Your task to perform on an android device: Show me popular games on the Play Store Image 0: 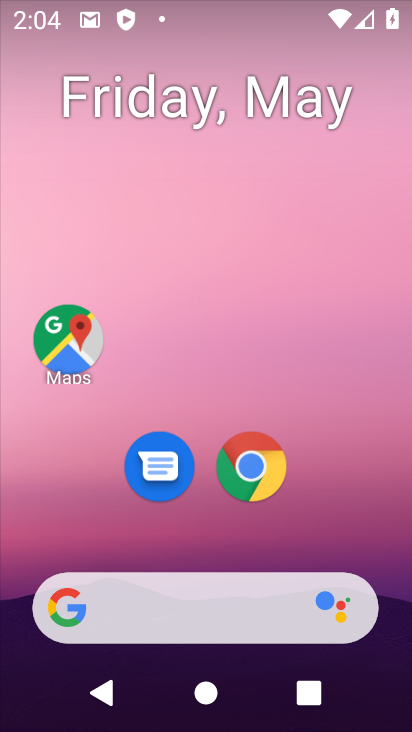
Step 0: drag from (169, 548) to (248, 200)
Your task to perform on an android device: Show me popular games on the Play Store Image 1: 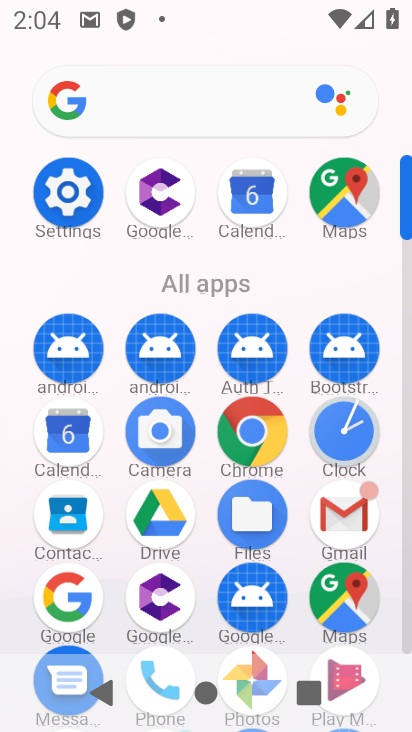
Step 1: drag from (167, 610) to (243, 117)
Your task to perform on an android device: Show me popular games on the Play Store Image 2: 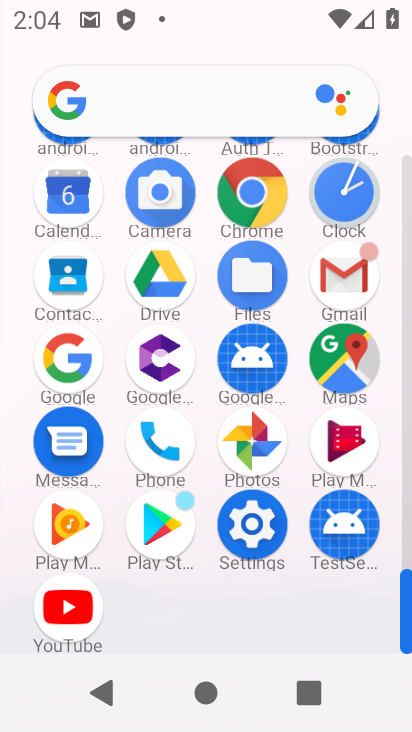
Step 2: click (165, 533)
Your task to perform on an android device: Show me popular games on the Play Store Image 3: 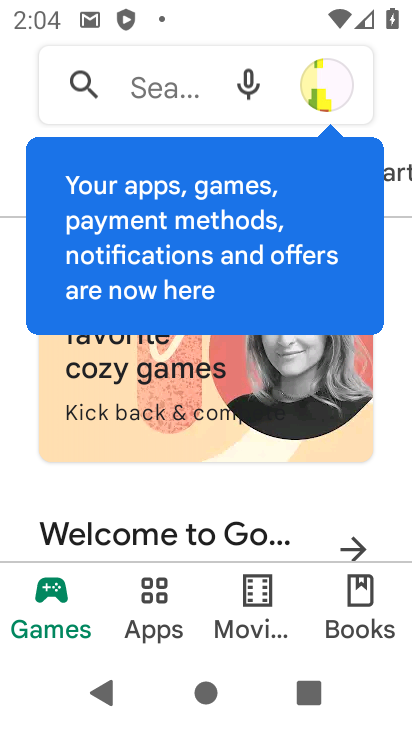
Step 3: drag from (149, 589) to (283, 78)
Your task to perform on an android device: Show me popular games on the Play Store Image 4: 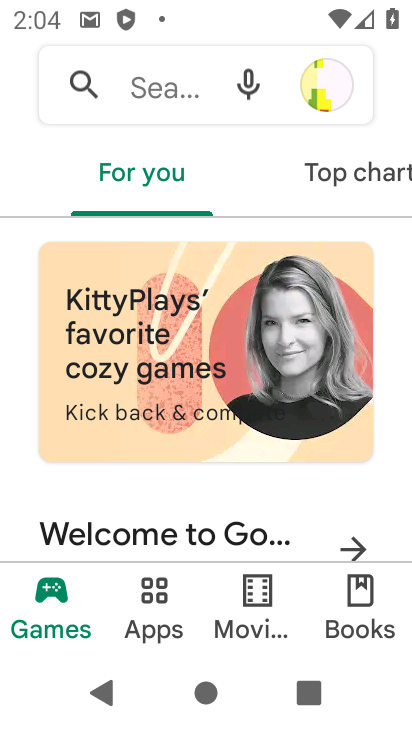
Step 4: drag from (178, 435) to (272, 27)
Your task to perform on an android device: Show me popular games on the Play Store Image 5: 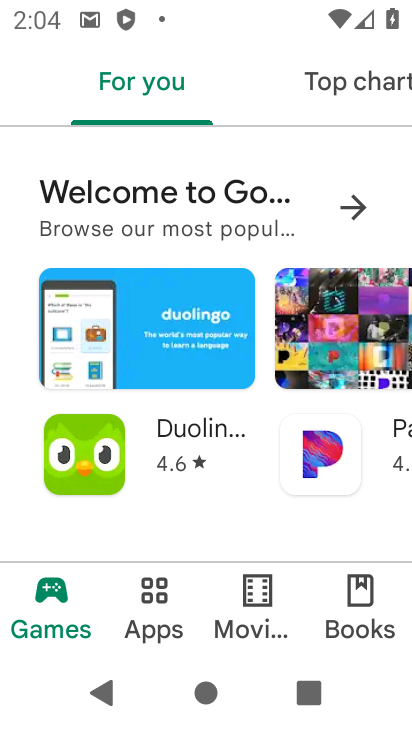
Step 5: drag from (169, 469) to (336, 12)
Your task to perform on an android device: Show me popular games on the Play Store Image 6: 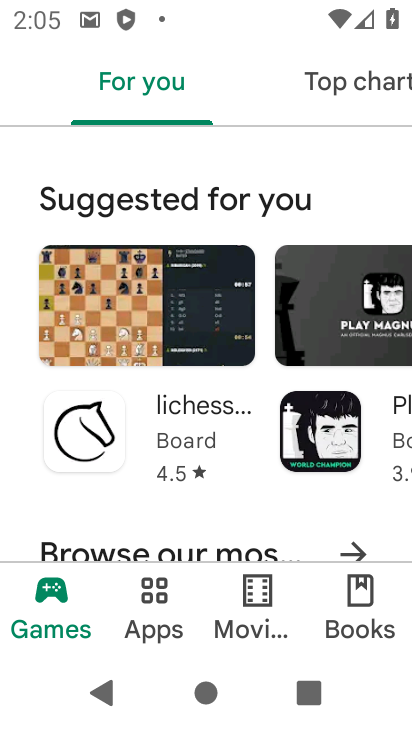
Step 6: drag from (180, 514) to (240, 294)
Your task to perform on an android device: Show me popular games on the Play Store Image 7: 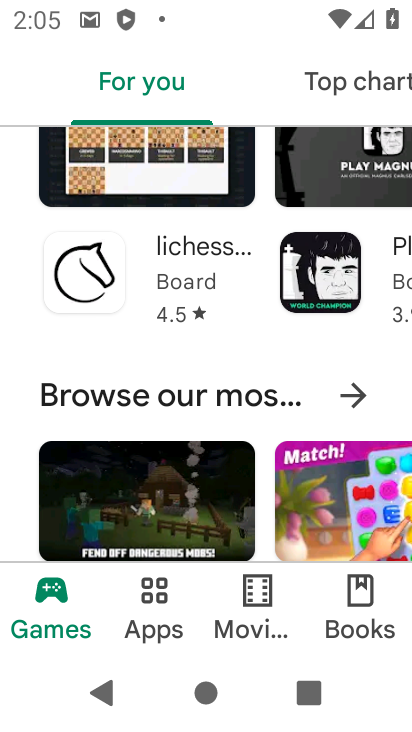
Step 7: click (327, 393)
Your task to perform on an android device: Show me popular games on the Play Store Image 8: 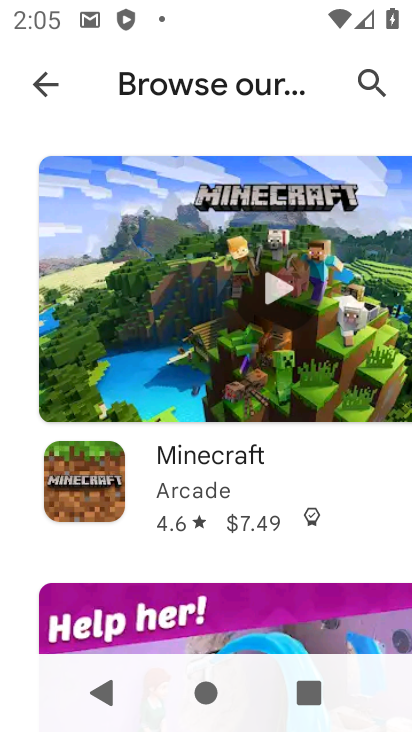
Step 8: click (49, 85)
Your task to perform on an android device: Show me popular games on the Play Store Image 9: 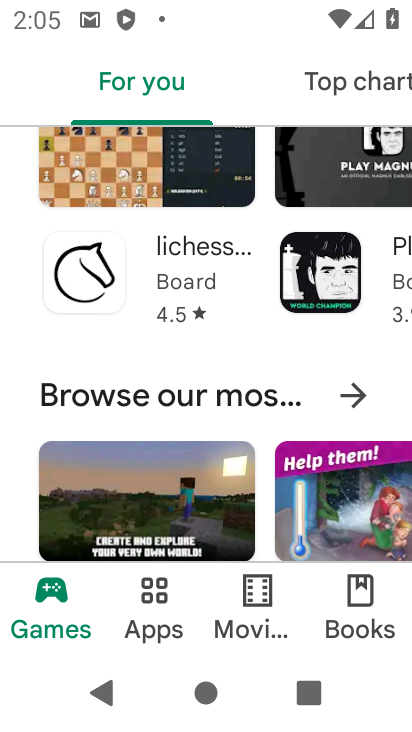
Step 9: drag from (162, 502) to (230, 214)
Your task to perform on an android device: Show me popular games on the Play Store Image 10: 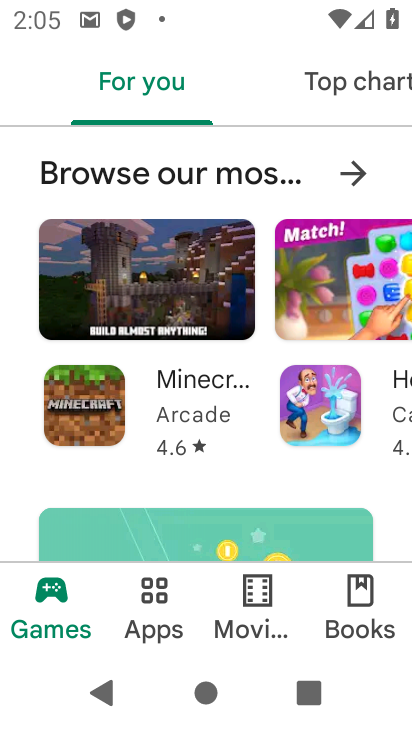
Step 10: click (328, 175)
Your task to perform on an android device: Show me popular games on the Play Store Image 11: 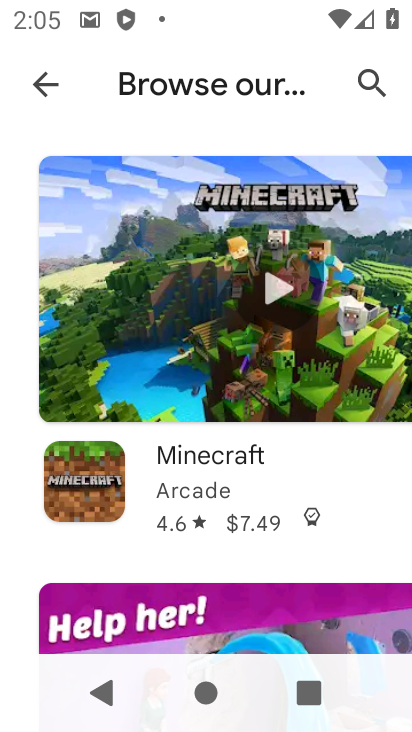
Step 11: task complete